Your task to perform on an android device: open app "Fetch Rewards" Image 0: 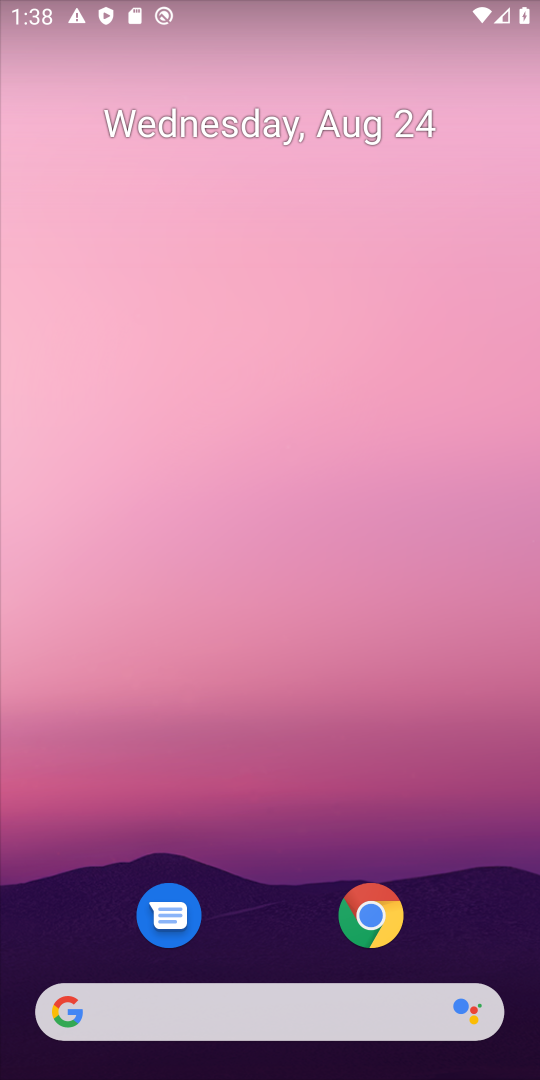
Step 0: press back button
Your task to perform on an android device: open app "Fetch Rewards" Image 1: 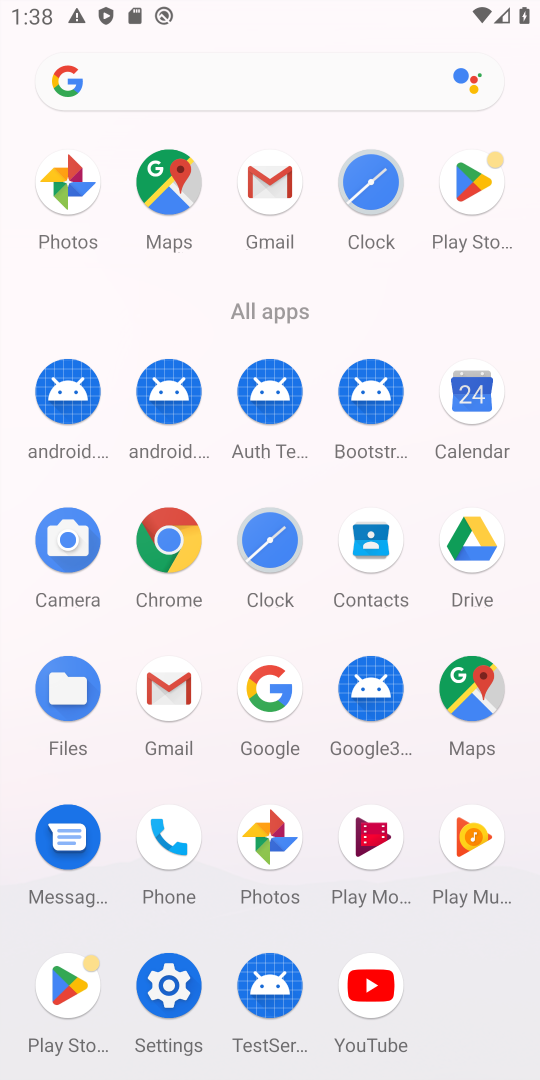
Step 1: press home button
Your task to perform on an android device: open app "Fetch Rewards" Image 2: 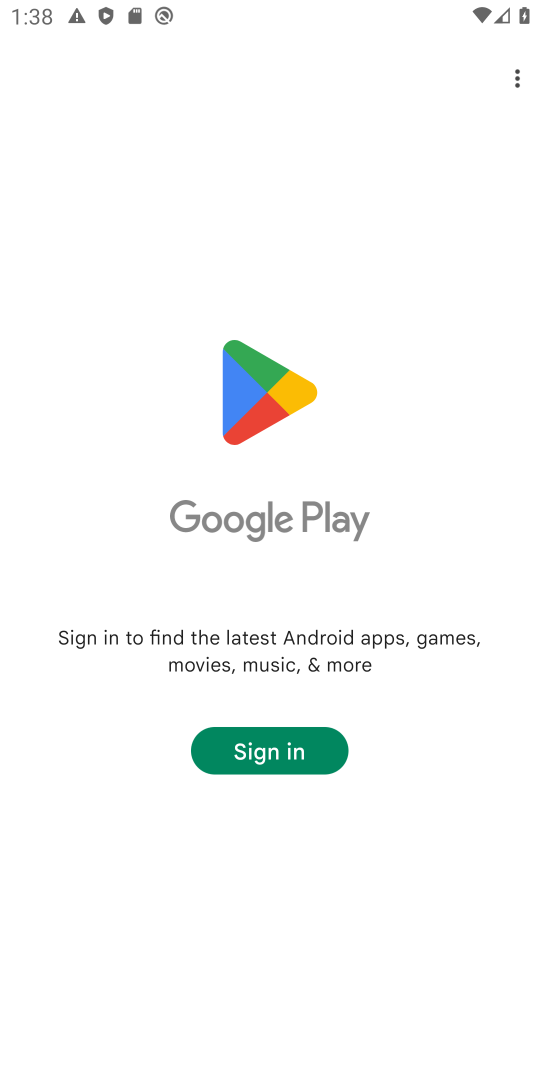
Step 2: drag from (274, 774) to (259, 223)
Your task to perform on an android device: open app "Fetch Rewards" Image 3: 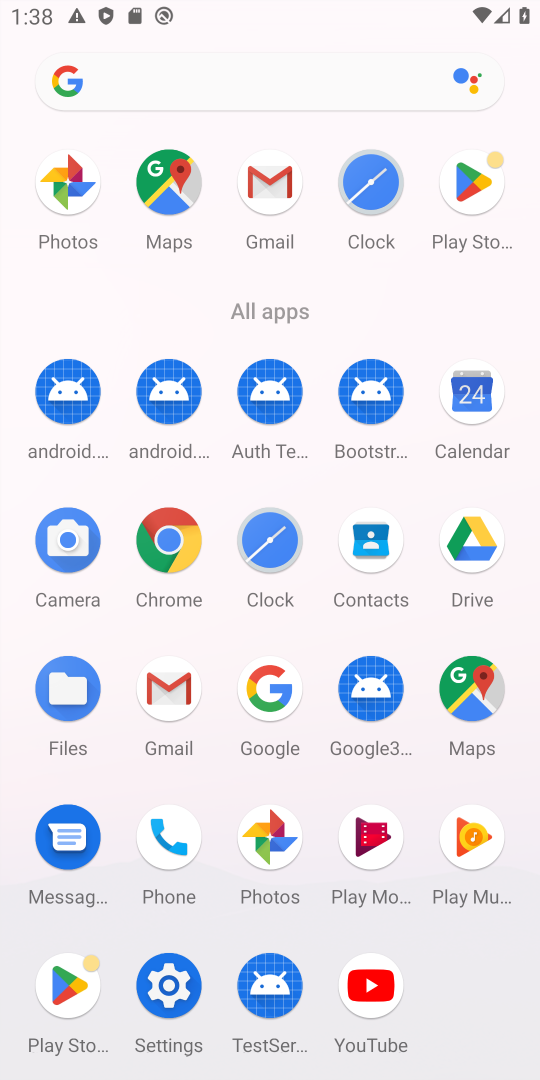
Step 3: click (473, 186)
Your task to perform on an android device: open app "Fetch Rewards" Image 4: 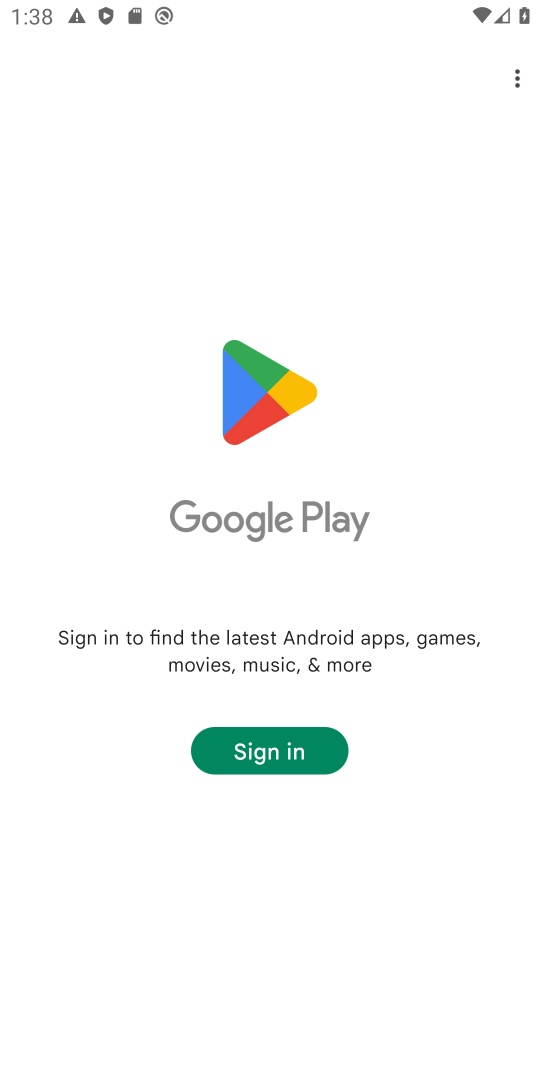
Step 4: task complete